Your task to perform on an android device: Go to accessibility settings Image 0: 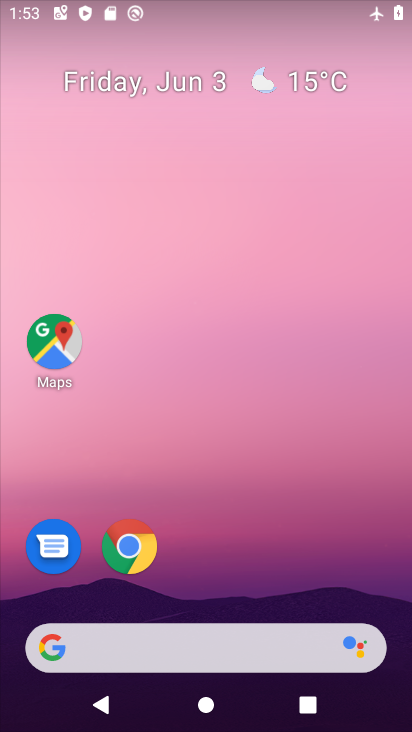
Step 0: click (277, 45)
Your task to perform on an android device: Go to accessibility settings Image 1: 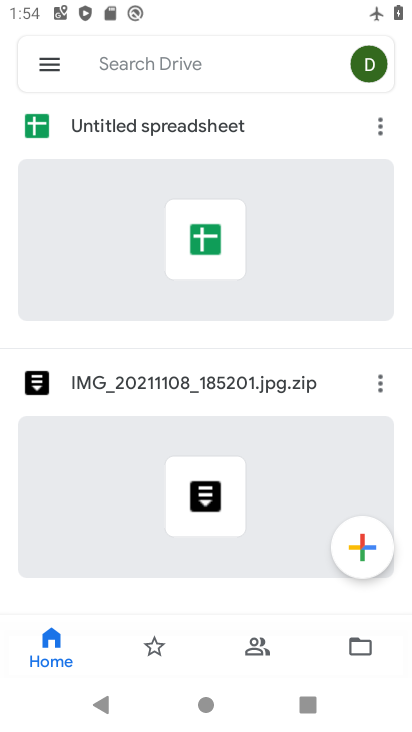
Step 1: press home button
Your task to perform on an android device: Go to accessibility settings Image 2: 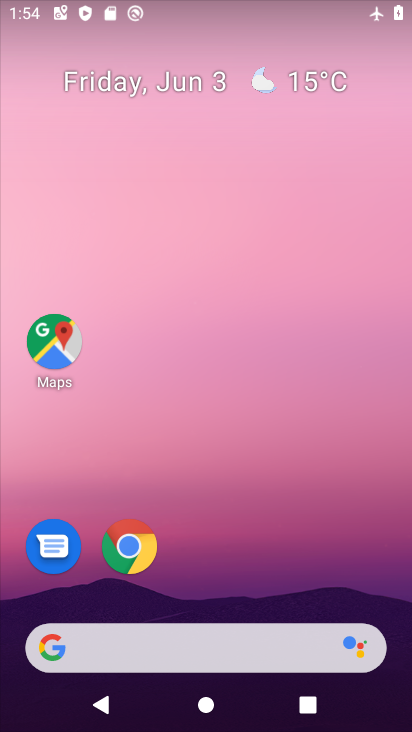
Step 2: drag from (294, 506) to (271, 265)
Your task to perform on an android device: Go to accessibility settings Image 3: 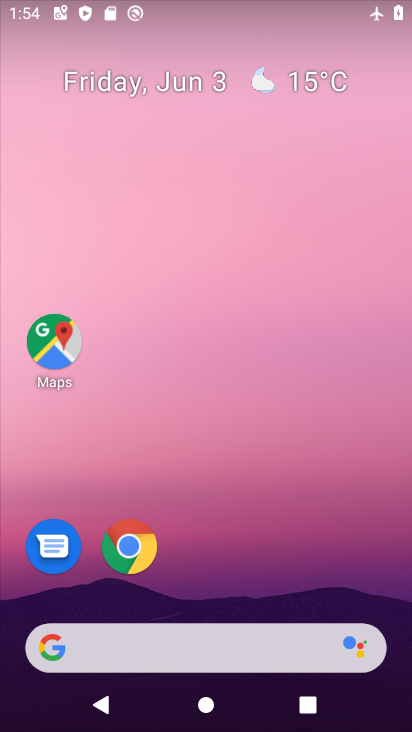
Step 3: click (280, 106)
Your task to perform on an android device: Go to accessibility settings Image 4: 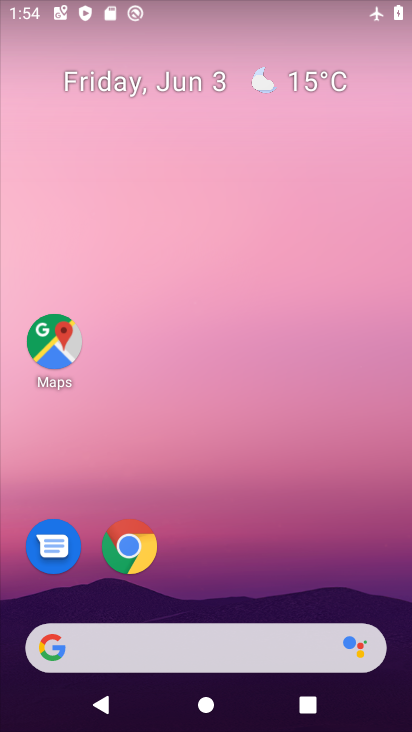
Step 4: drag from (288, 569) to (245, 104)
Your task to perform on an android device: Go to accessibility settings Image 5: 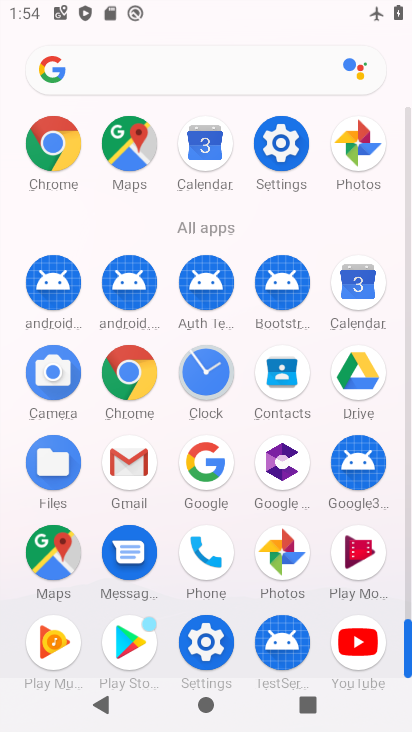
Step 5: click (279, 164)
Your task to perform on an android device: Go to accessibility settings Image 6: 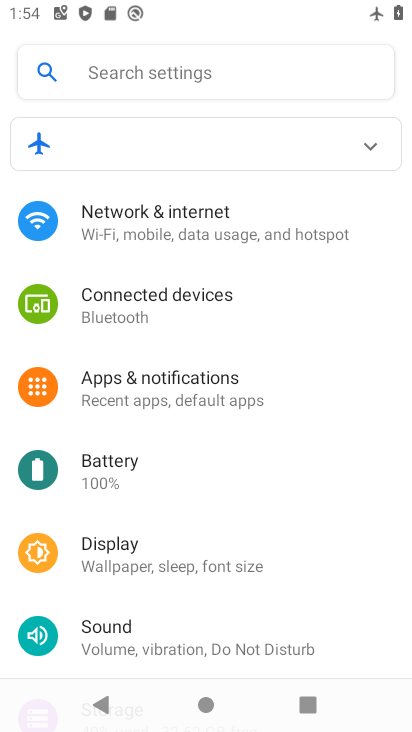
Step 6: drag from (195, 499) to (193, 182)
Your task to perform on an android device: Go to accessibility settings Image 7: 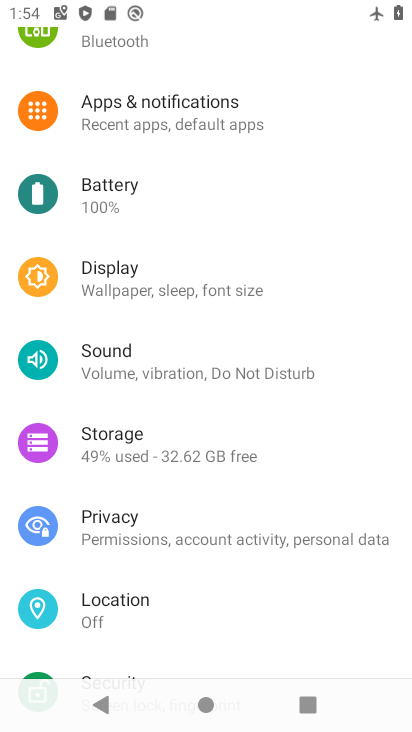
Step 7: drag from (221, 612) to (214, 254)
Your task to perform on an android device: Go to accessibility settings Image 8: 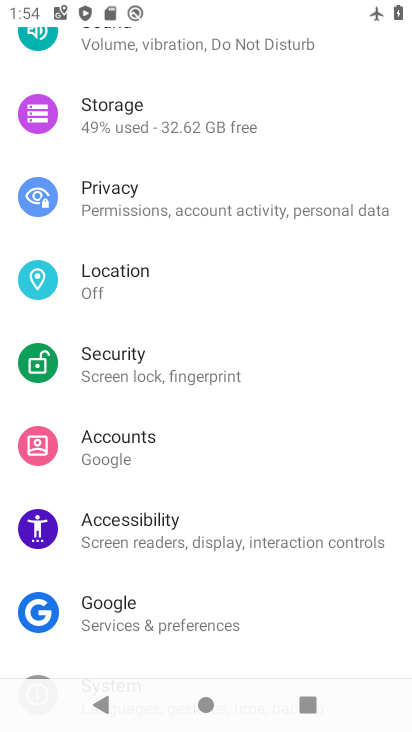
Step 8: click (172, 507)
Your task to perform on an android device: Go to accessibility settings Image 9: 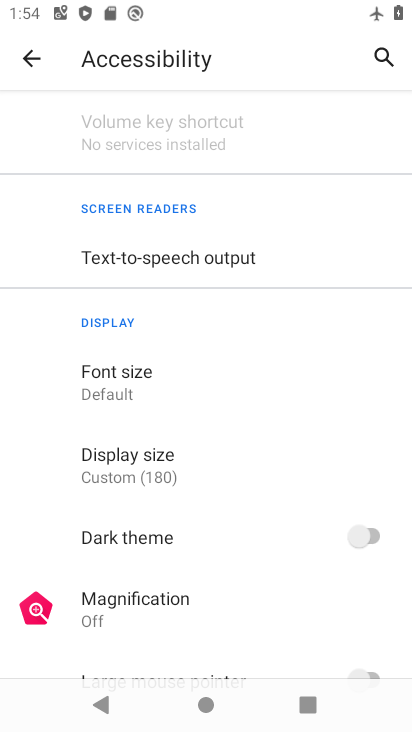
Step 9: task complete